Your task to perform on an android device: Open Google Chrome and open the bookmarks view Image 0: 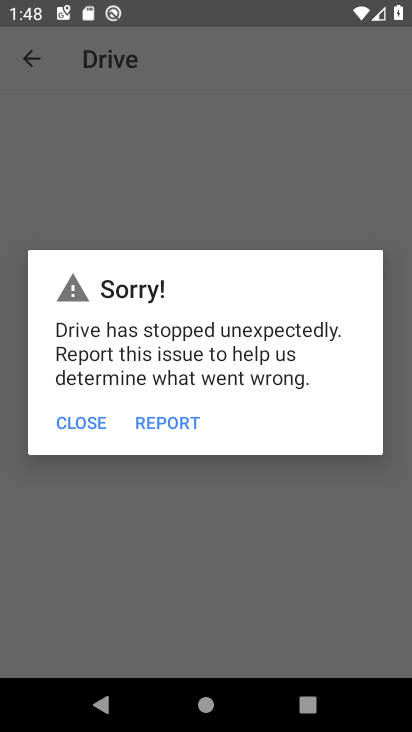
Step 0: press home button
Your task to perform on an android device: Open Google Chrome and open the bookmarks view Image 1: 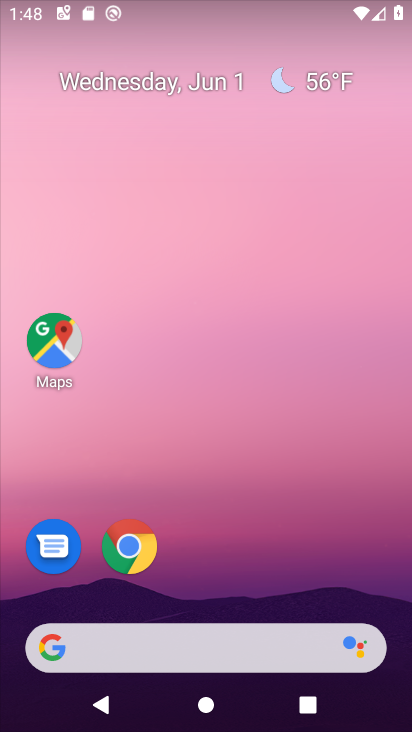
Step 1: click (136, 542)
Your task to perform on an android device: Open Google Chrome and open the bookmarks view Image 2: 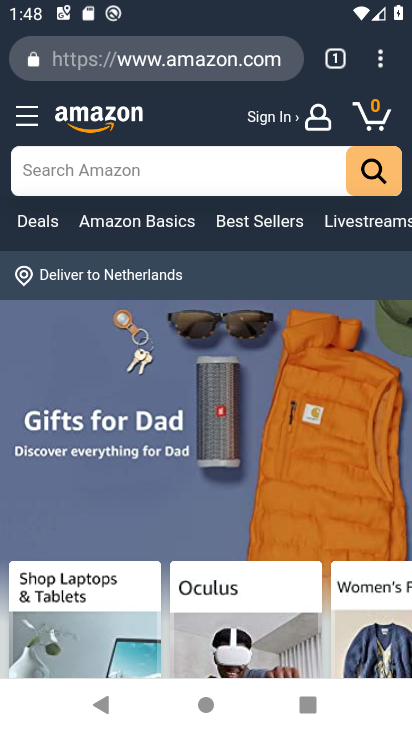
Step 2: click (384, 61)
Your task to perform on an android device: Open Google Chrome and open the bookmarks view Image 3: 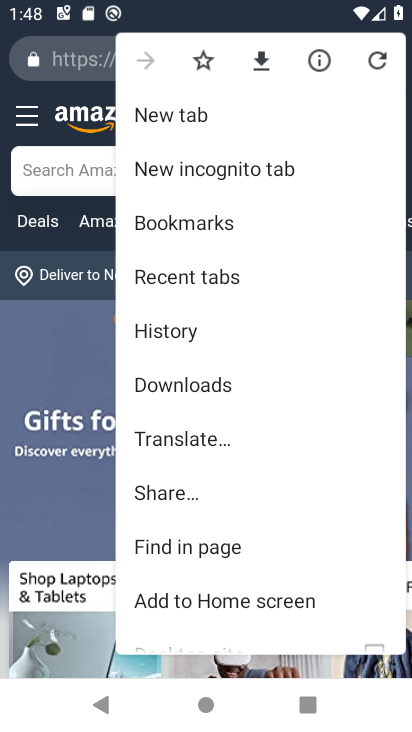
Step 3: click (192, 226)
Your task to perform on an android device: Open Google Chrome and open the bookmarks view Image 4: 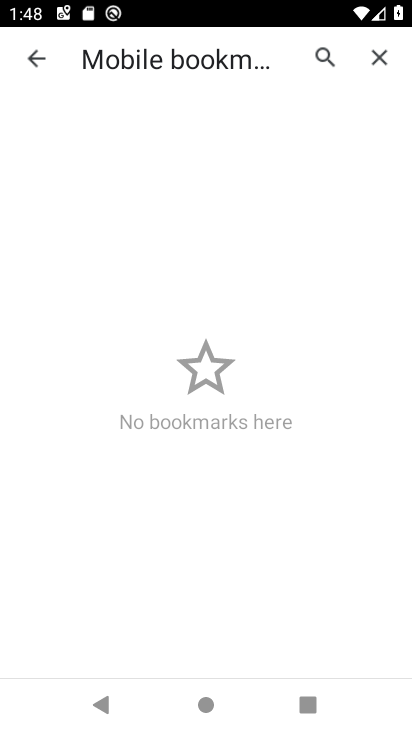
Step 4: task complete